Your task to perform on an android device: open app "Duolingo: language lessons" (install if not already installed) Image 0: 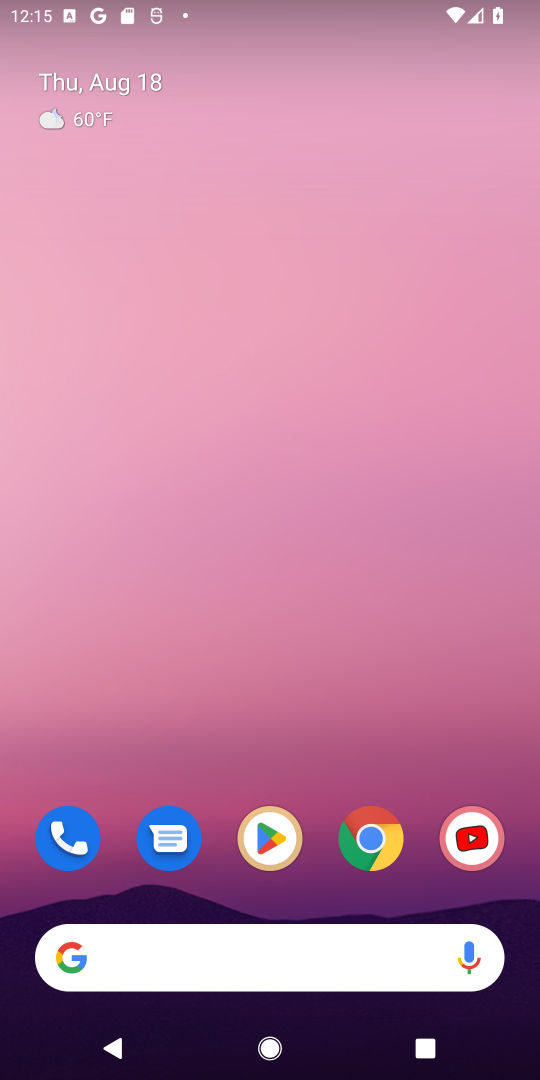
Step 0: click (259, 847)
Your task to perform on an android device: open app "Duolingo: language lessons" (install if not already installed) Image 1: 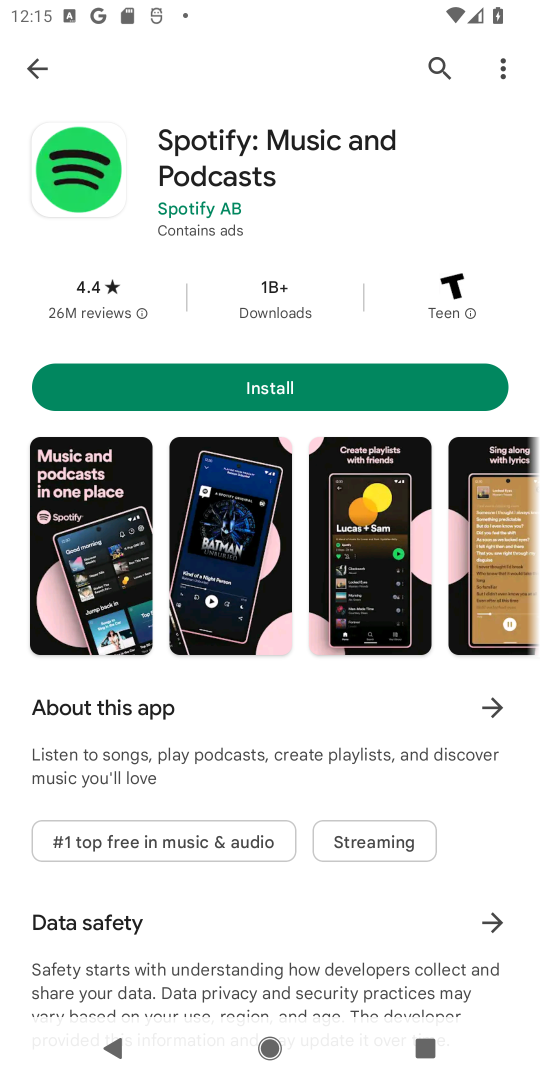
Step 1: click (441, 58)
Your task to perform on an android device: open app "Duolingo: language lessons" (install if not already installed) Image 2: 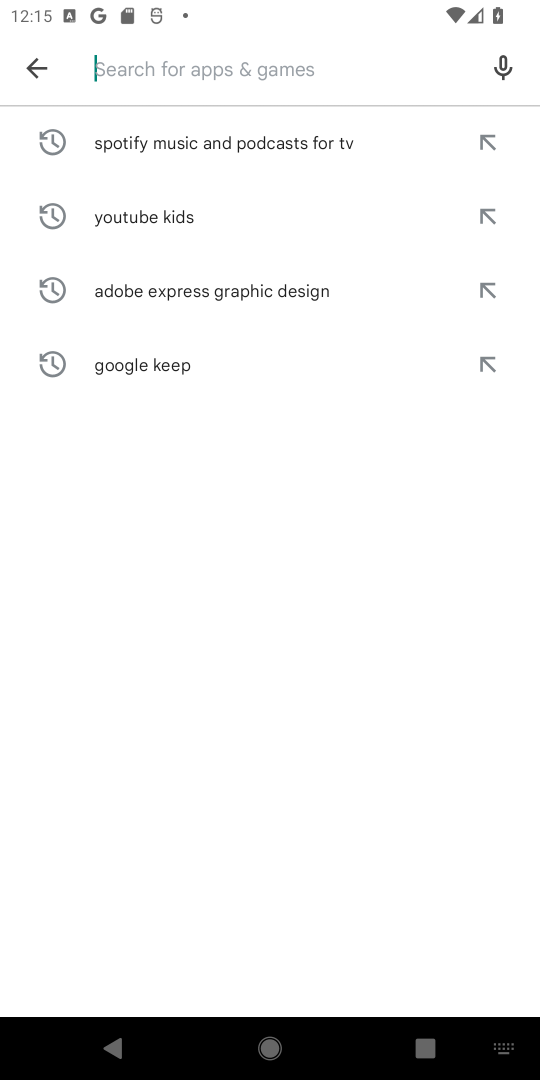
Step 2: type "Duolingo: language lessons"
Your task to perform on an android device: open app "Duolingo: language lessons" (install if not already installed) Image 3: 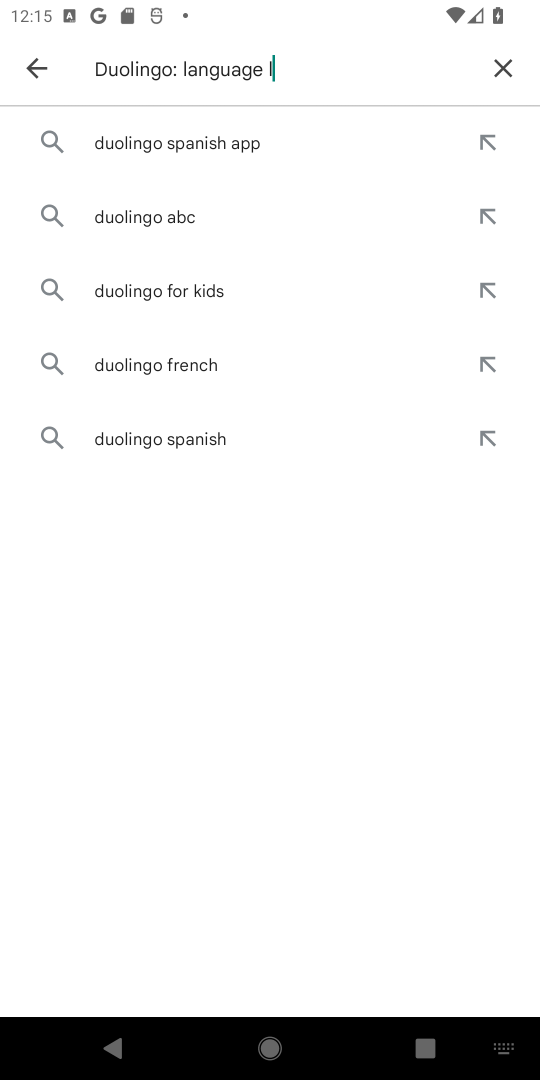
Step 3: type ""
Your task to perform on an android device: open app "Duolingo: language lessons" (install if not already installed) Image 4: 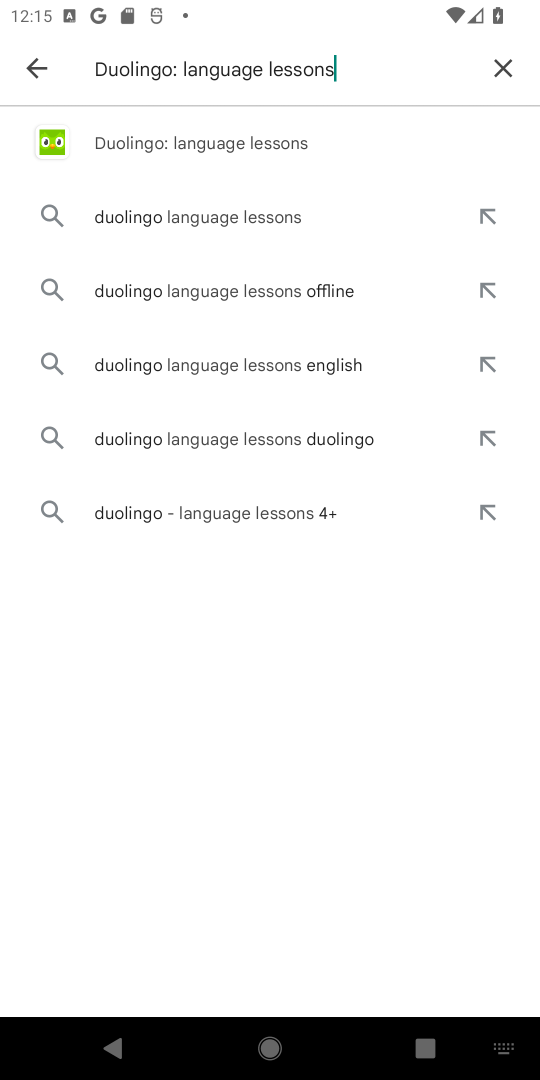
Step 4: click (238, 138)
Your task to perform on an android device: open app "Duolingo: language lessons" (install if not already installed) Image 5: 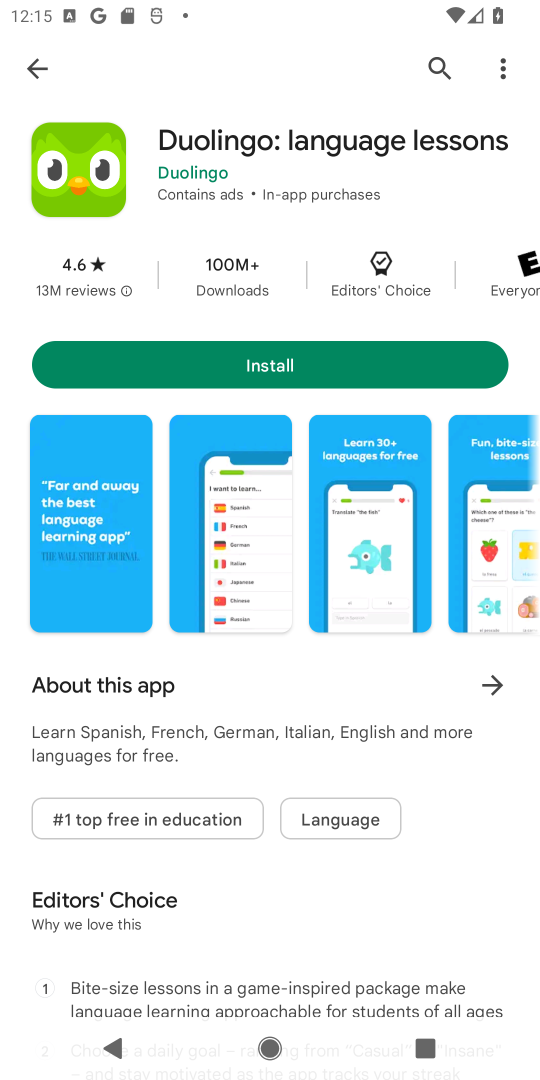
Step 5: click (313, 358)
Your task to perform on an android device: open app "Duolingo: language lessons" (install if not already installed) Image 6: 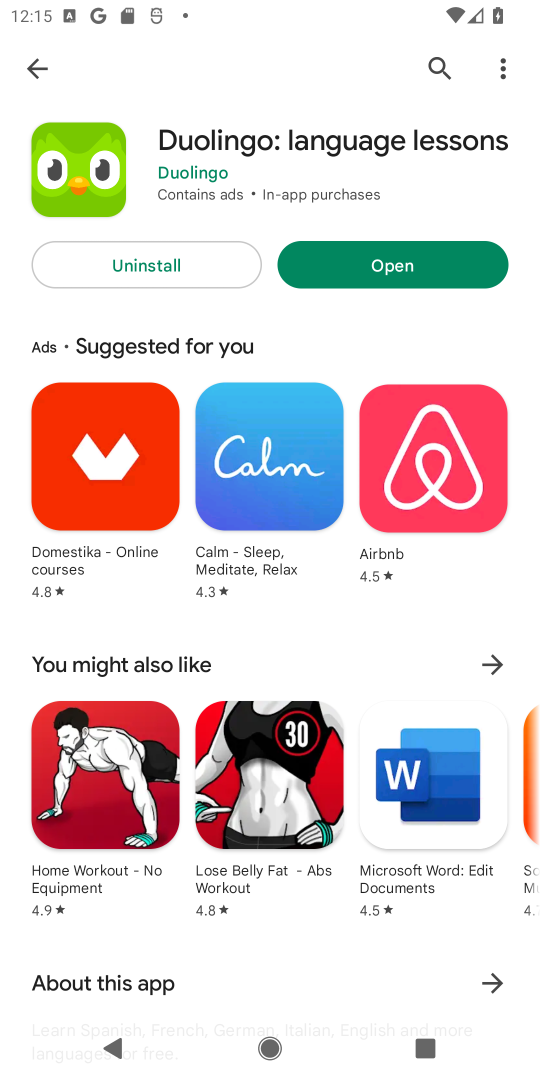
Step 6: click (377, 263)
Your task to perform on an android device: open app "Duolingo: language lessons" (install if not already installed) Image 7: 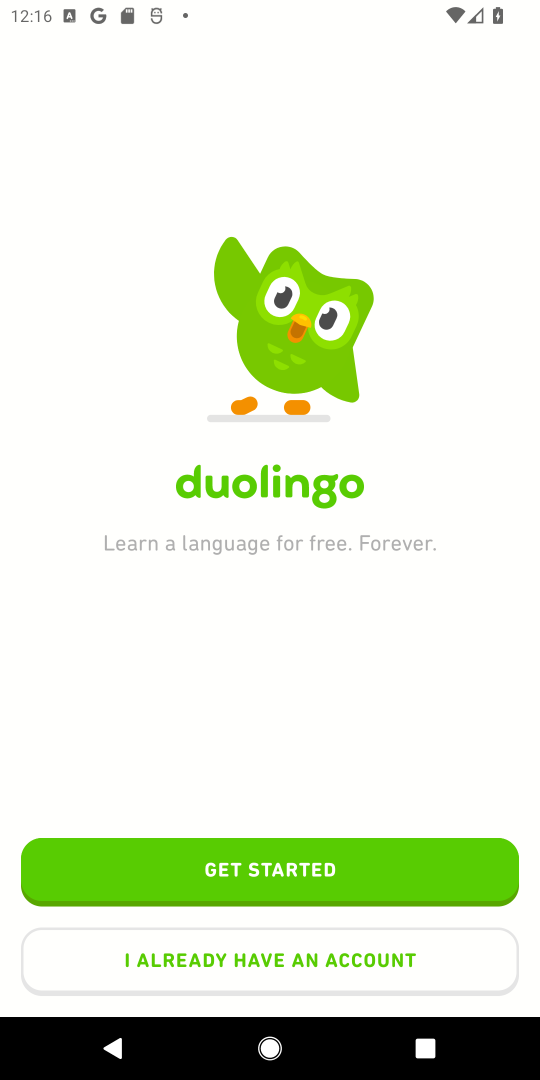
Step 7: task complete